Your task to perform on an android device: Go to wifi settings Image 0: 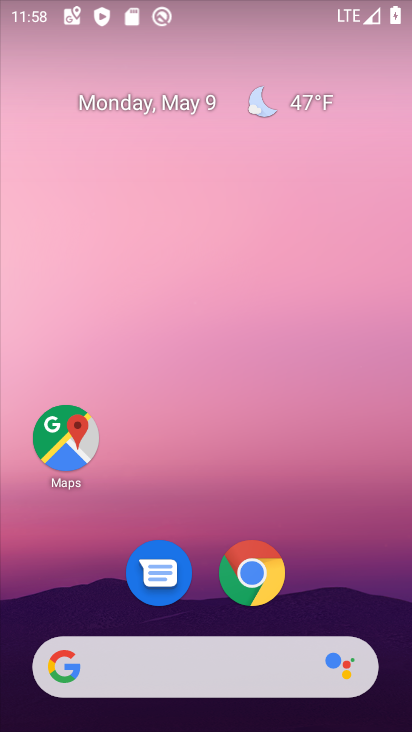
Step 0: drag from (211, 554) to (207, 222)
Your task to perform on an android device: Go to wifi settings Image 1: 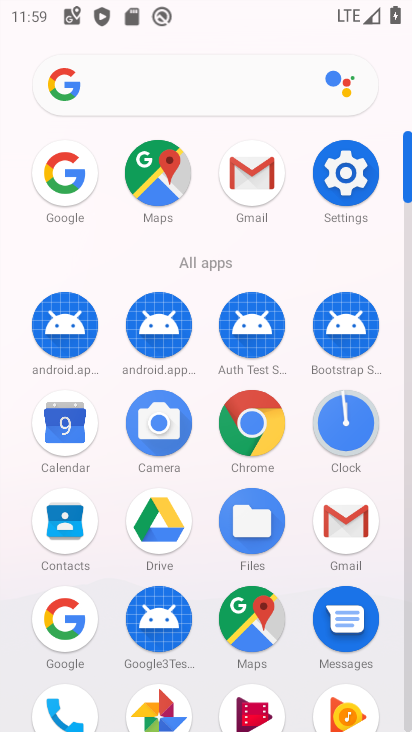
Step 1: click (345, 170)
Your task to perform on an android device: Go to wifi settings Image 2: 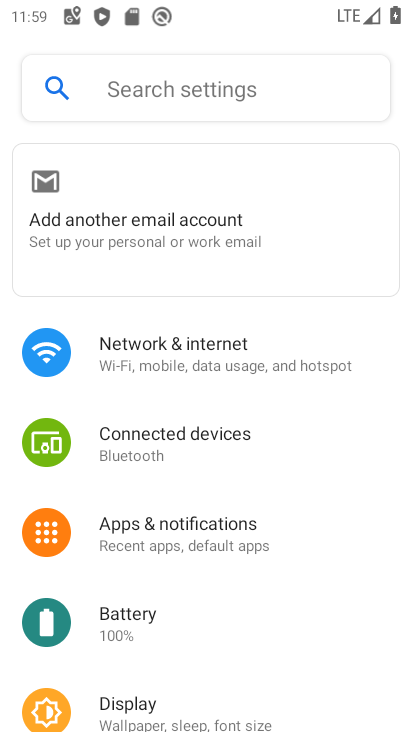
Step 2: click (164, 364)
Your task to perform on an android device: Go to wifi settings Image 3: 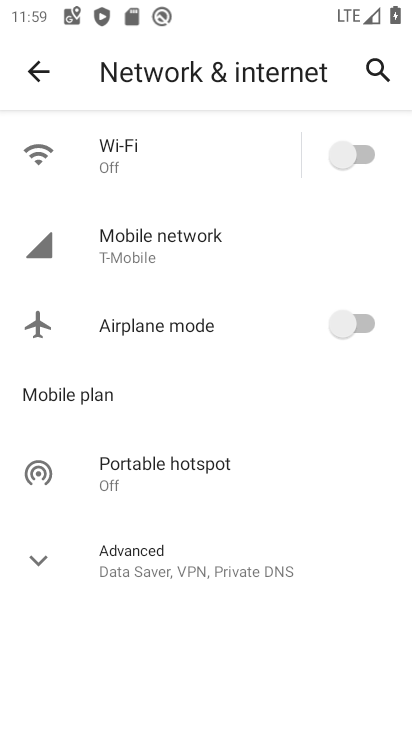
Step 3: click (221, 155)
Your task to perform on an android device: Go to wifi settings Image 4: 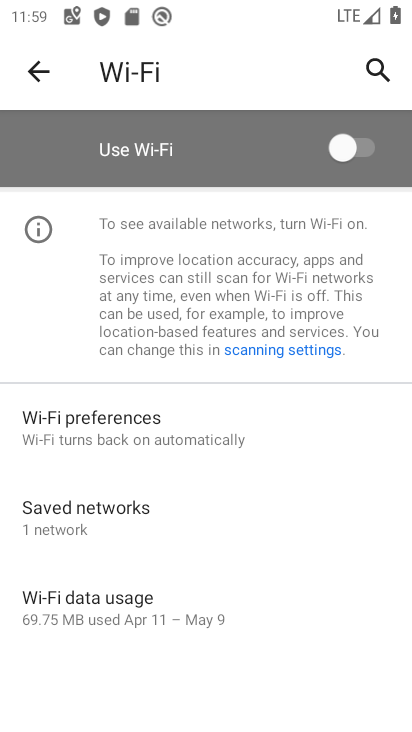
Step 4: task complete